Your task to perform on an android device: open app "Chime – Mobile Banking" (install if not already installed), go to login, and select forgot password Image 0: 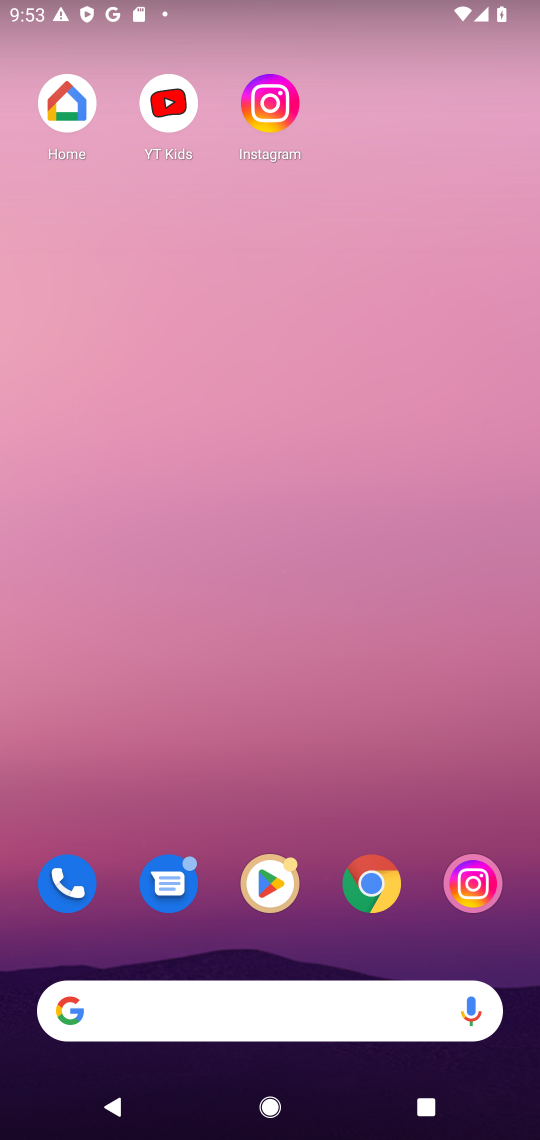
Step 0: press home button
Your task to perform on an android device: open app "Chime – Mobile Banking" (install if not already installed), go to login, and select forgot password Image 1: 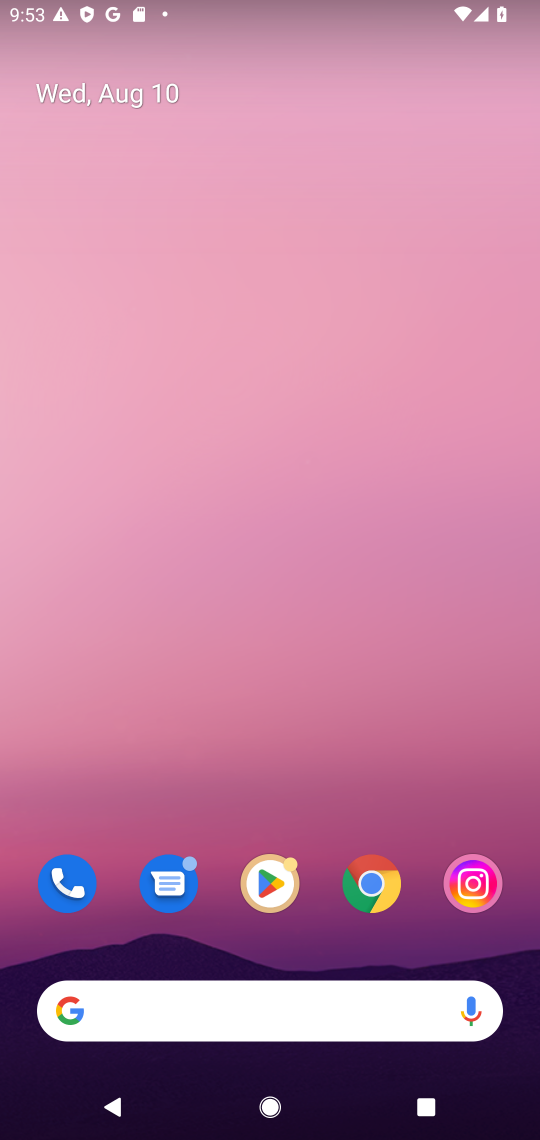
Step 1: drag from (405, 778) to (405, 62)
Your task to perform on an android device: open app "Chime – Mobile Banking" (install if not already installed), go to login, and select forgot password Image 2: 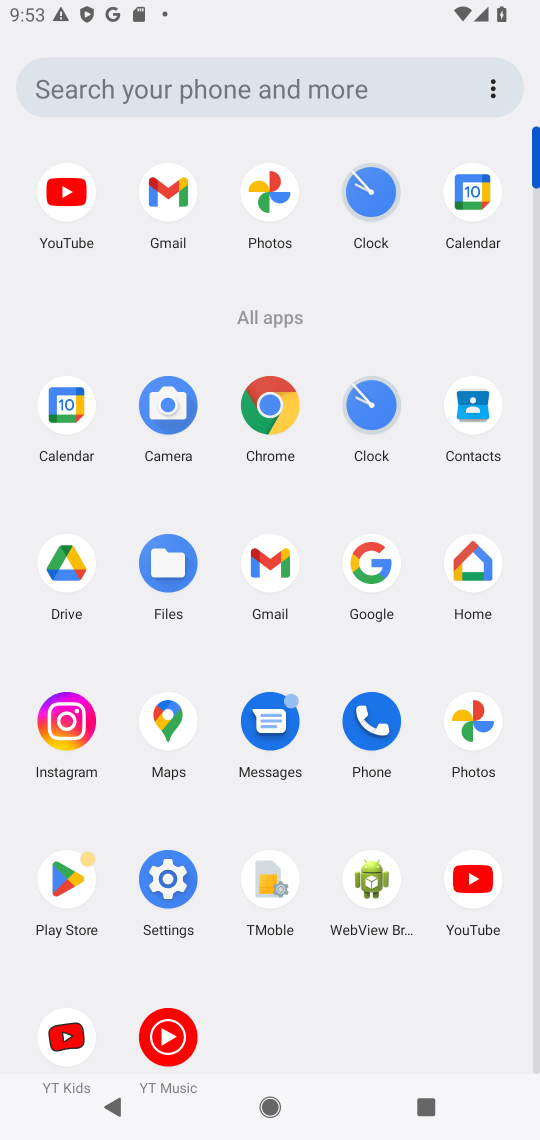
Step 2: click (64, 894)
Your task to perform on an android device: open app "Chime – Mobile Banking" (install if not already installed), go to login, and select forgot password Image 3: 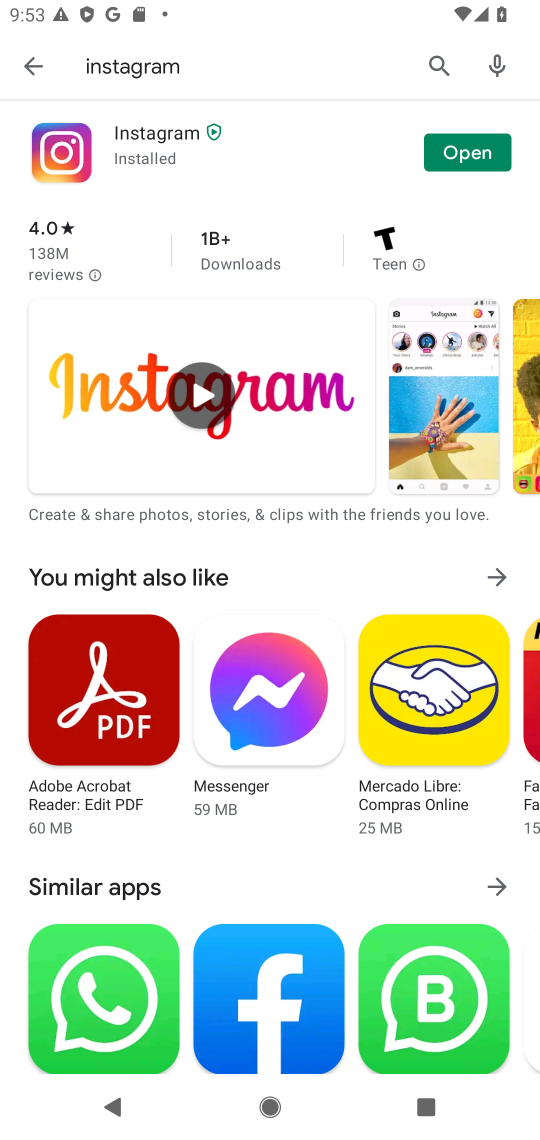
Step 3: click (442, 64)
Your task to perform on an android device: open app "Chime – Mobile Banking" (install if not already installed), go to login, and select forgot password Image 4: 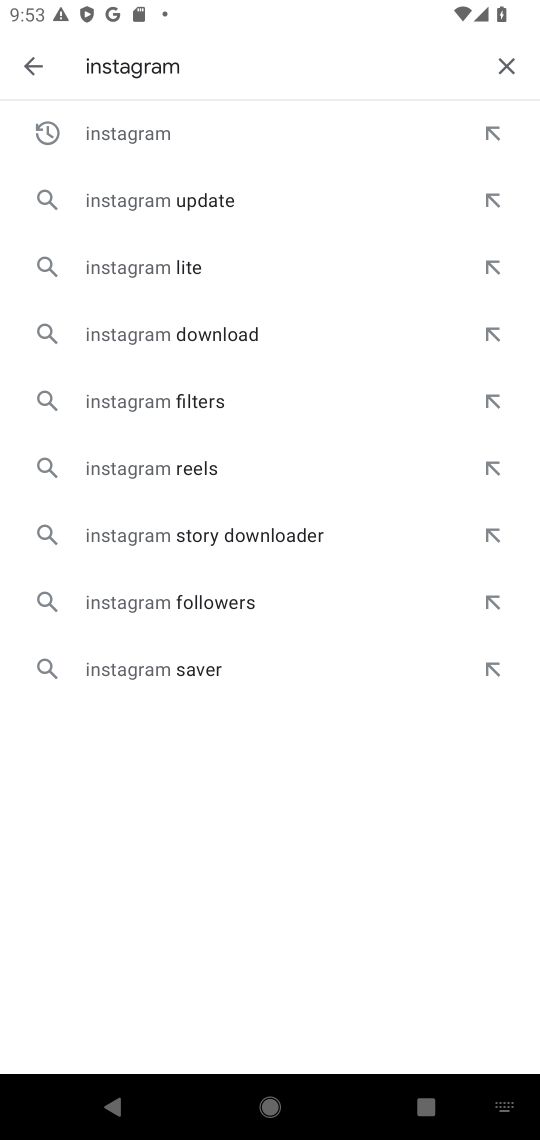
Step 4: click (507, 55)
Your task to perform on an android device: open app "Chime – Mobile Banking" (install if not already installed), go to login, and select forgot password Image 5: 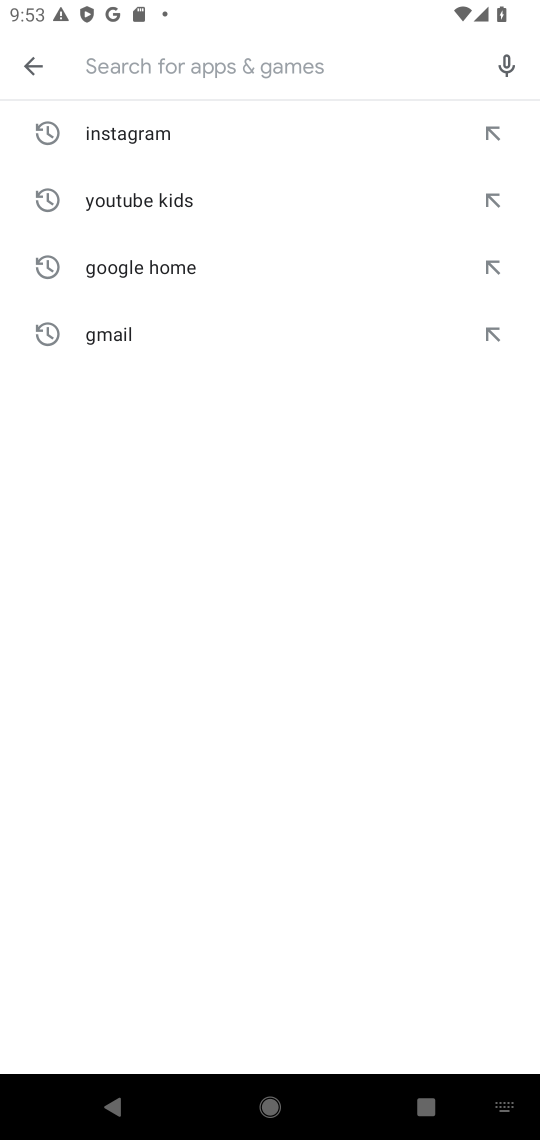
Step 5: press enter
Your task to perform on an android device: open app "Chime – Mobile Banking" (install if not already installed), go to login, and select forgot password Image 6: 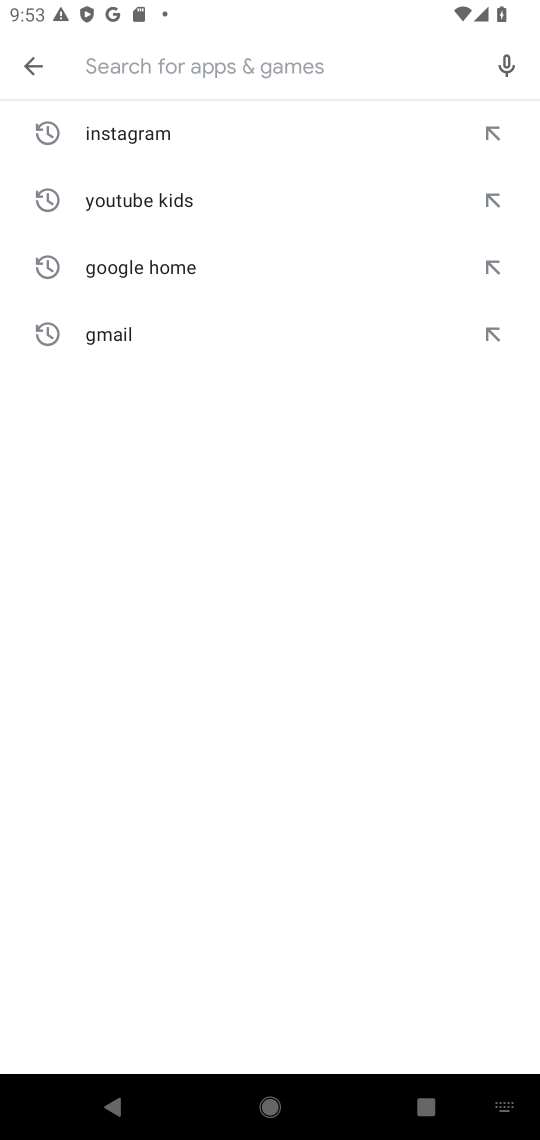
Step 6: type "Chime – Mobile Banking"
Your task to perform on an android device: open app "Chime – Mobile Banking" (install if not already installed), go to login, and select forgot password Image 7: 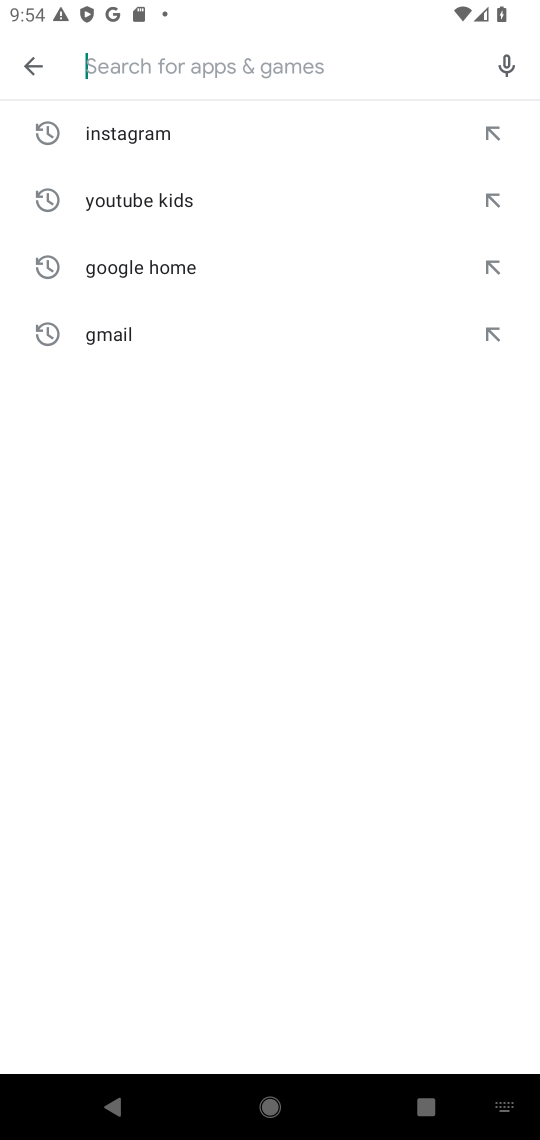
Step 7: click (302, 69)
Your task to perform on an android device: open app "Chime – Mobile Banking" (install if not already installed), go to login, and select forgot password Image 8: 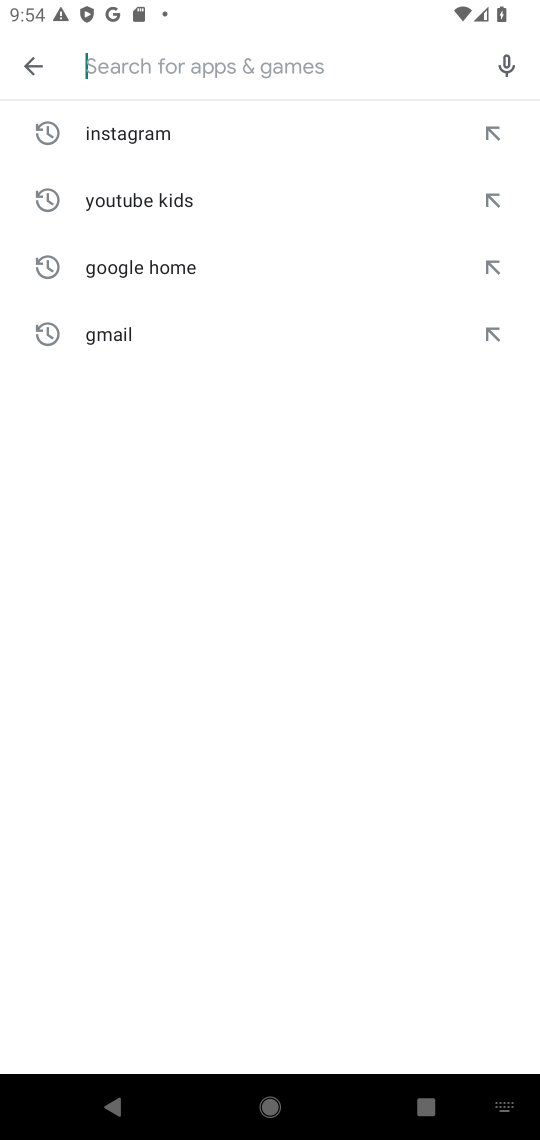
Step 8: task complete